Your task to perform on an android device: empty trash in google photos Image 0: 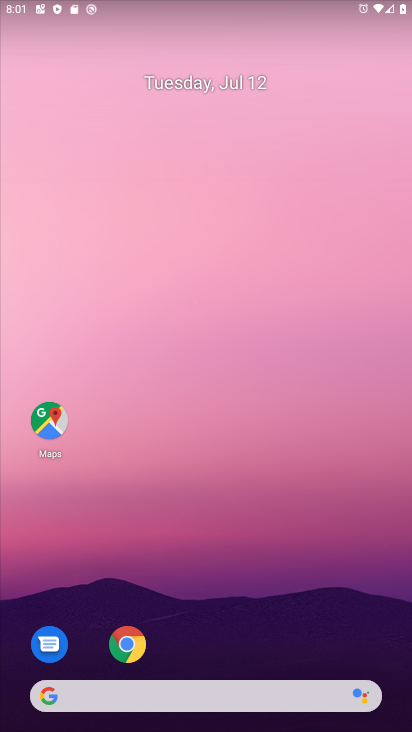
Step 0: drag from (175, 680) to (176, 54)
Your task to perform on an android device: empty trash in google photos Image 1: 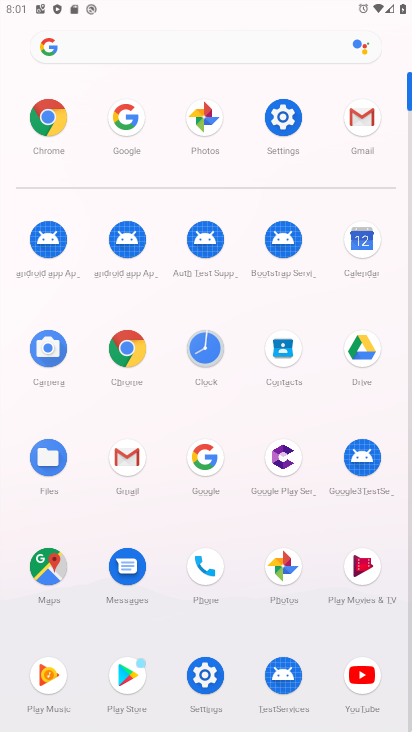
Step 1: click (205, 116)
Your task to perform on an android device: empty trash in google photos Image 2: 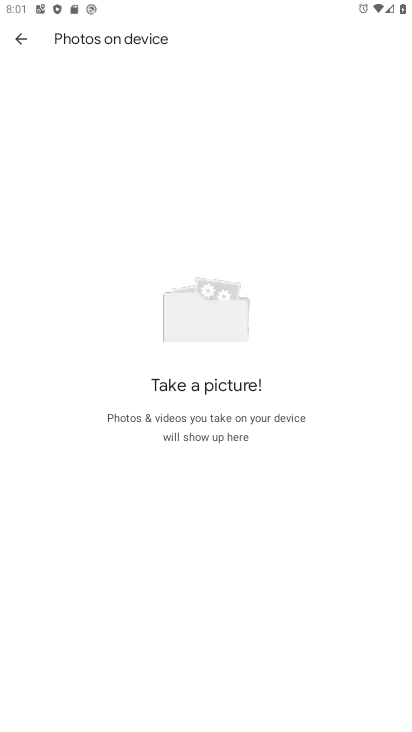
Step 2: click (21, 39)
Your task to perform on an android device: empty trash in google photos Image 3: 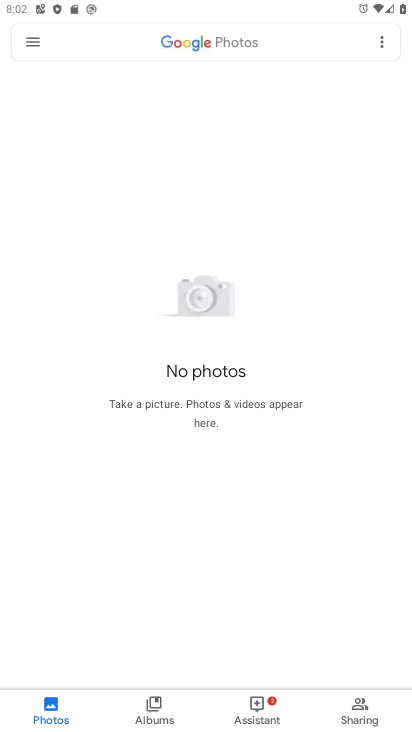
Step 3: click (40, 40)
Your task to perform on an android device: empty trash in google photos Image 4: 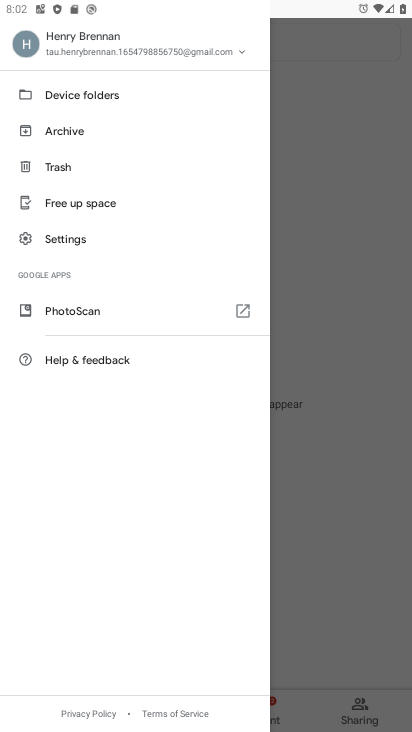
Step 4: click (64, 171)
Your task to perform on an android device: empty trash in google photos Image 5: 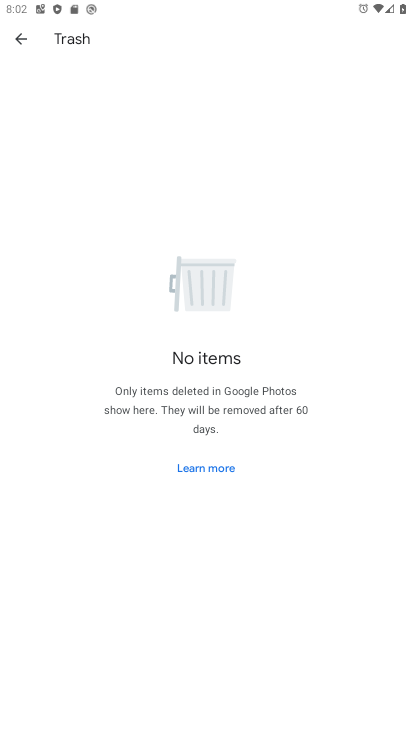
Step 5: task complete